Your task to perform on an android device: turn off smart reply in the gmail app Image 0: 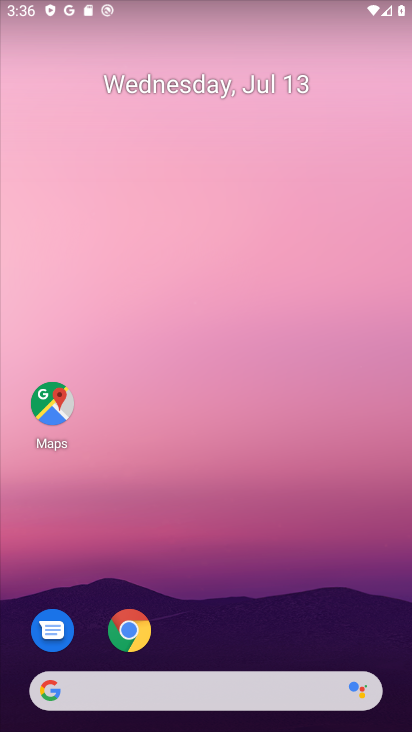
Step 0: drag from (204, 543) to (204, 35)
Your task to perform on an android device: turn off smart reply in the gmail app Image 1: 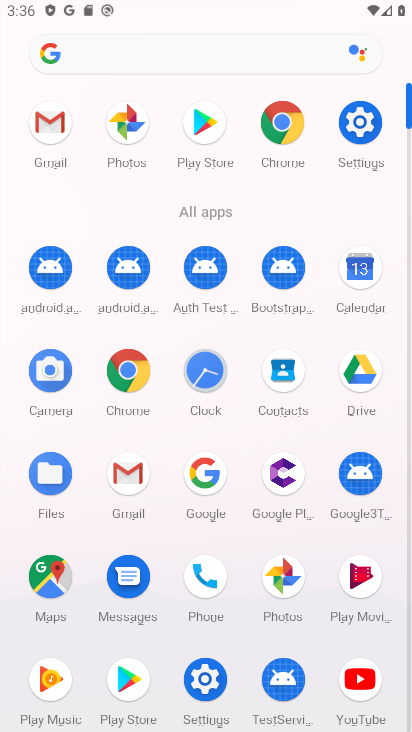
Step 1: click (46, 142)
Your task to perform on an android device: turn off smart reply in the gmail app Image 2: 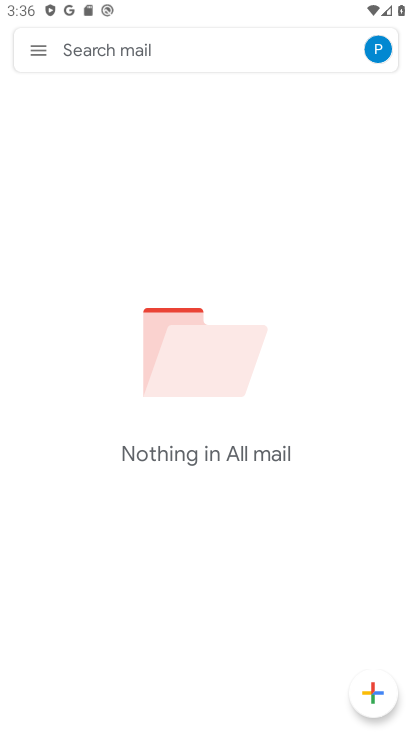
Step 2: click (43, 48)
Your task to perform on an android device: turn off smart reply in the gmail app Image 3: 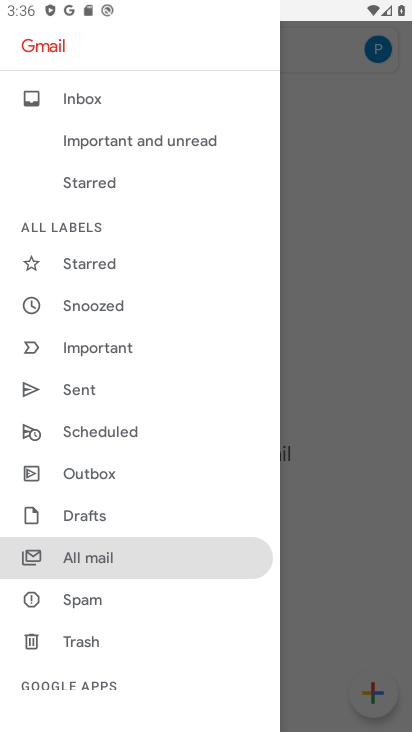
Step 3: drag from (108, 643) to (153, 181)
Your task to perform on an android device: turn off smart reply in the gmail app Image 4: 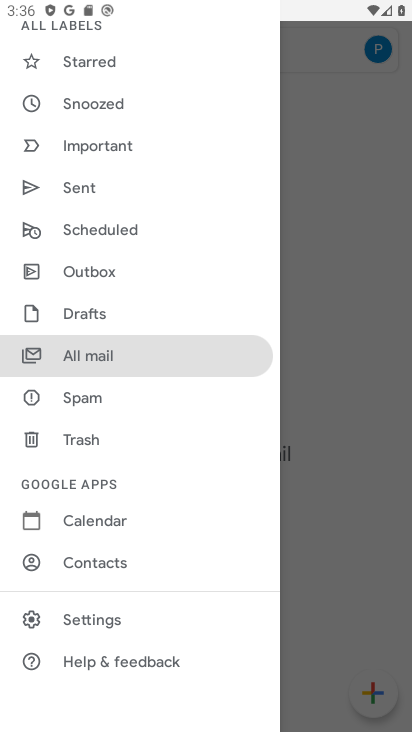
Step 4: click (104, 619)
Your task to perform on an android device: turn off smart reply in the gmail app Image 5: 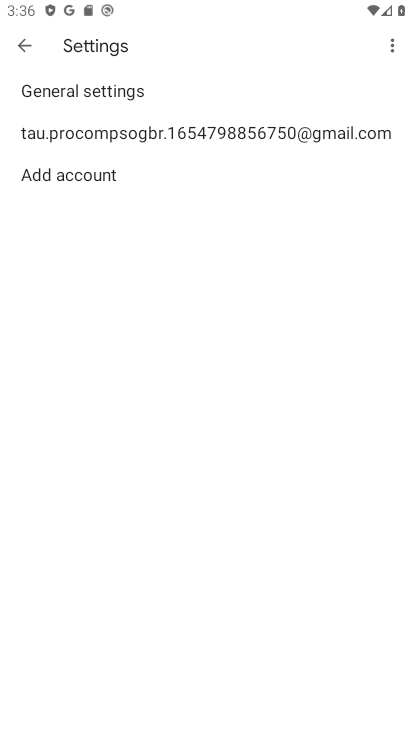
Step 5: click (279, 132)
Your task to perform on an android device: turn off smart reply in the gmail app Image 6: 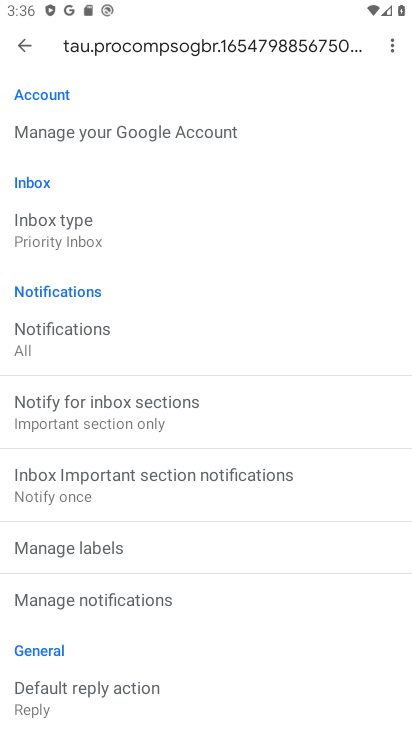
Step 6: drag from (138, 570) to (158, 221)
Your task to perform on an android device: turn off smart reply in the gmail app Image 7: 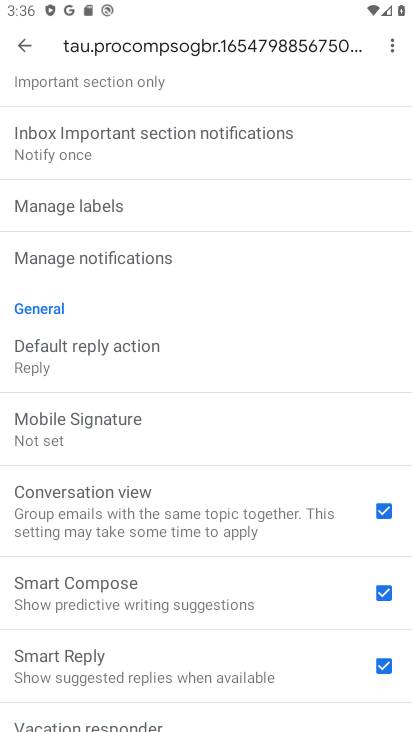
Step 7: click (379, 665)
Your task to perform on an android device: turn off smart reply in the gmail app Image 8: 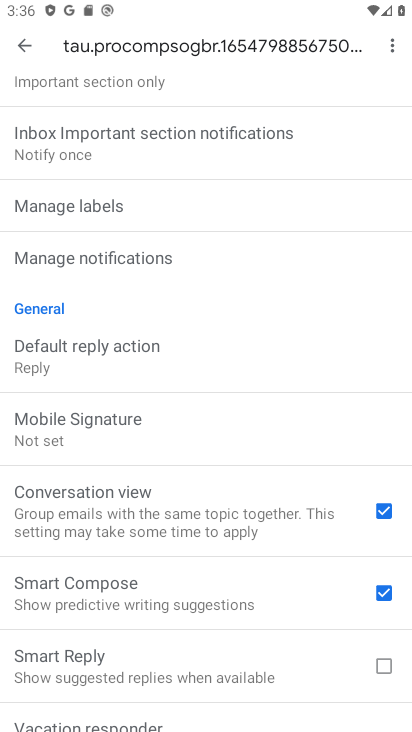
Step 8: task complete